Your task to perform on an android device: change timer sound Image 0: 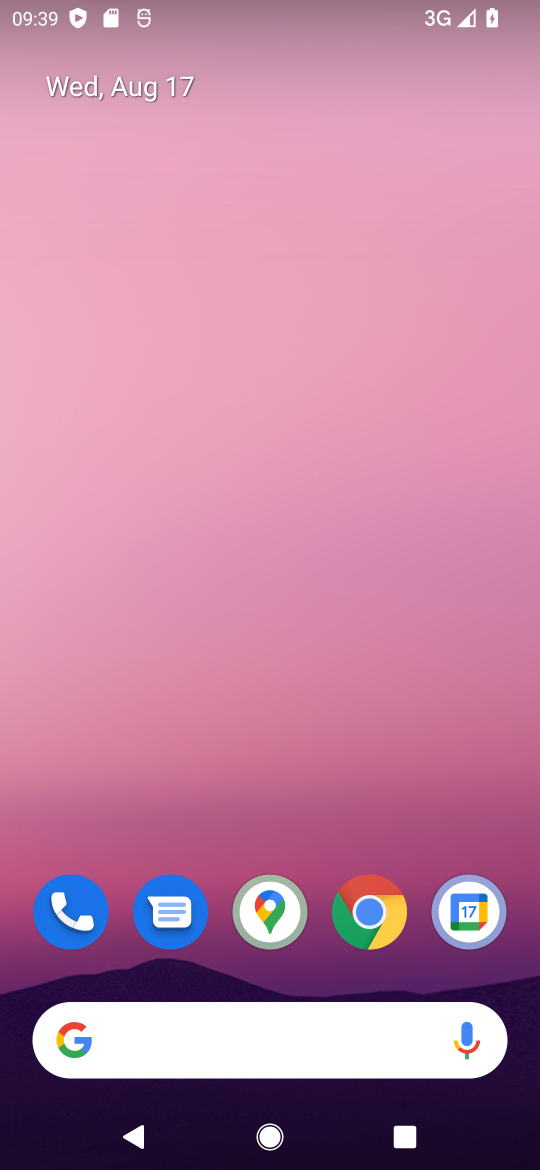
Step 0: drag from (208, 846) to (194, 12)
Your task to perform on an android device: change timer sound Image 1: 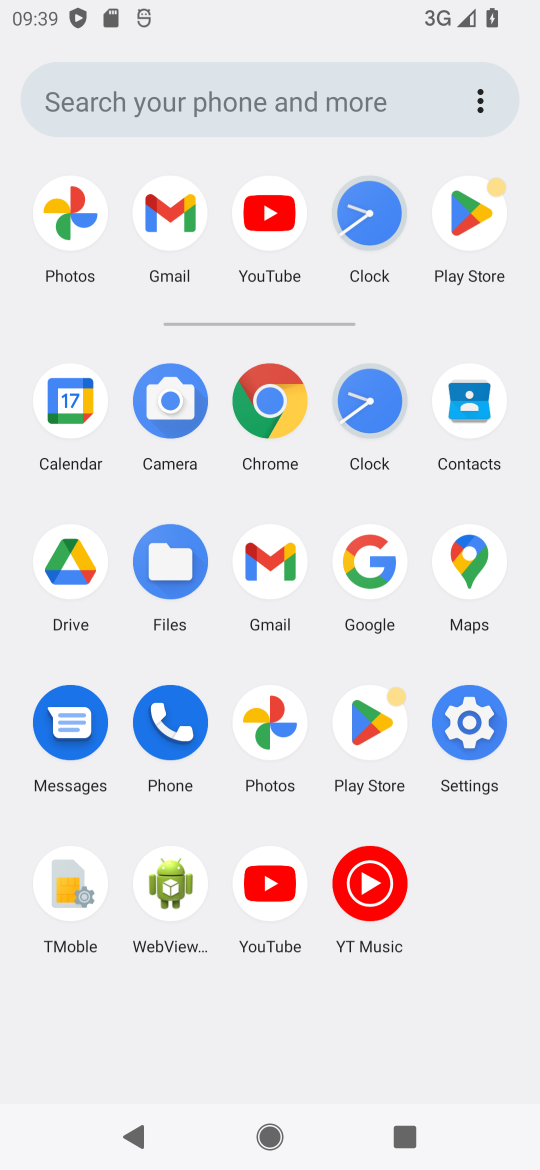
Step 1: click (388, 416)
Your task to perform on an android device: change timer sound Image 2: 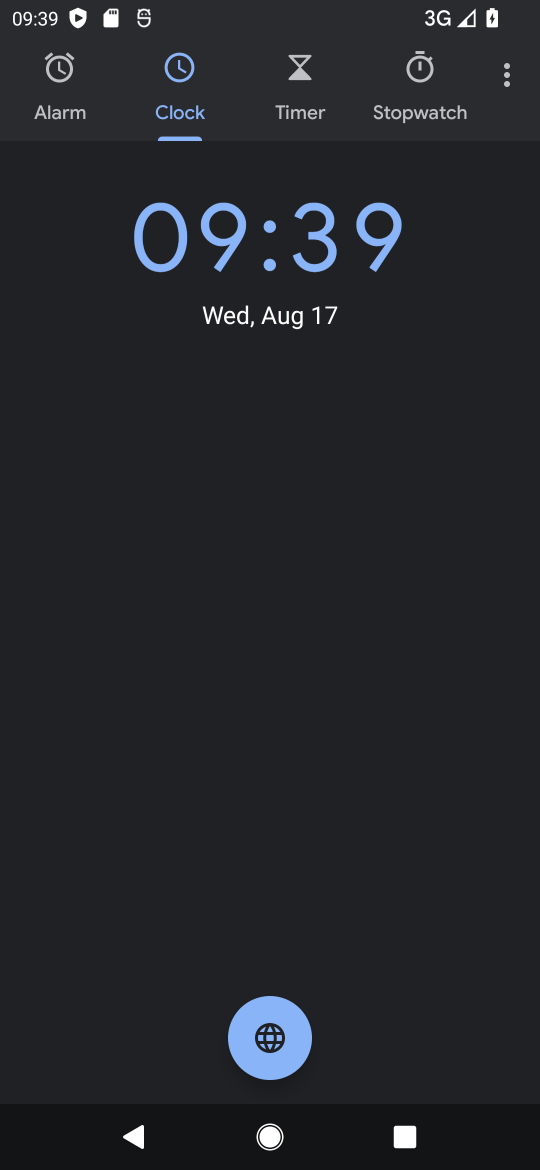
Step 2: click (499, 84)
Your task to perform on an android device: change timer sound Image 3: 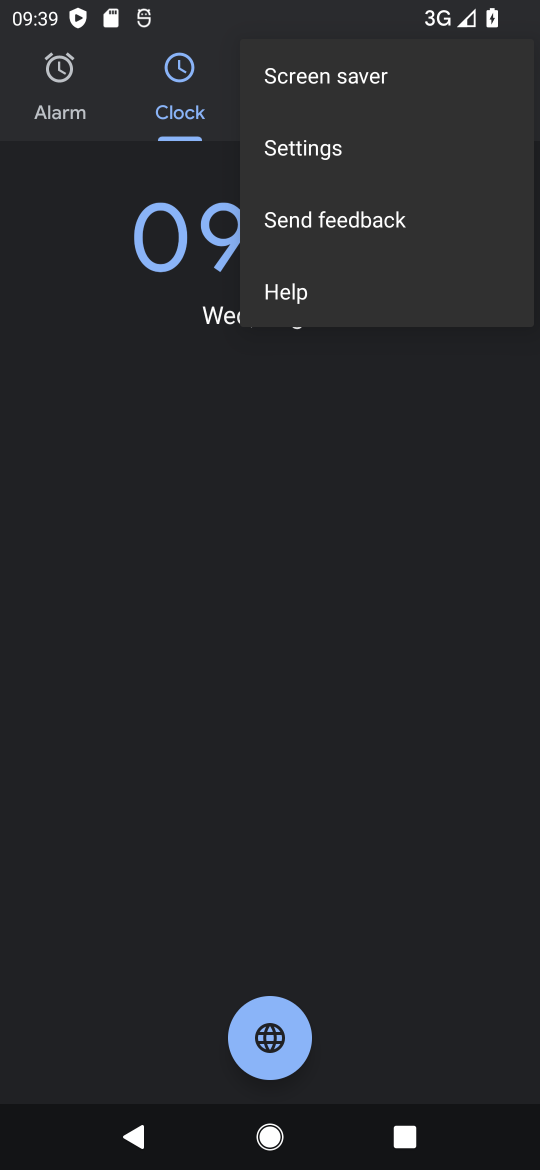
Step 3: click (297, 146)
Your task to perform on an android device: change timer sound Image 4: 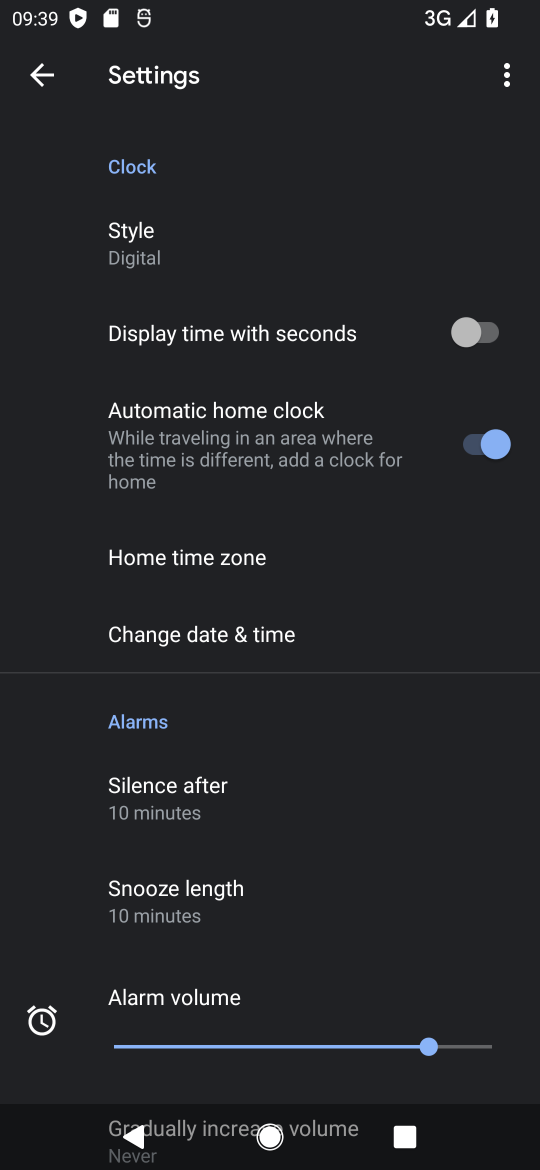
Step 4: drag from (157, 870) to (10, 267)
Your task to perform on an android device: change timer sound Image 5: 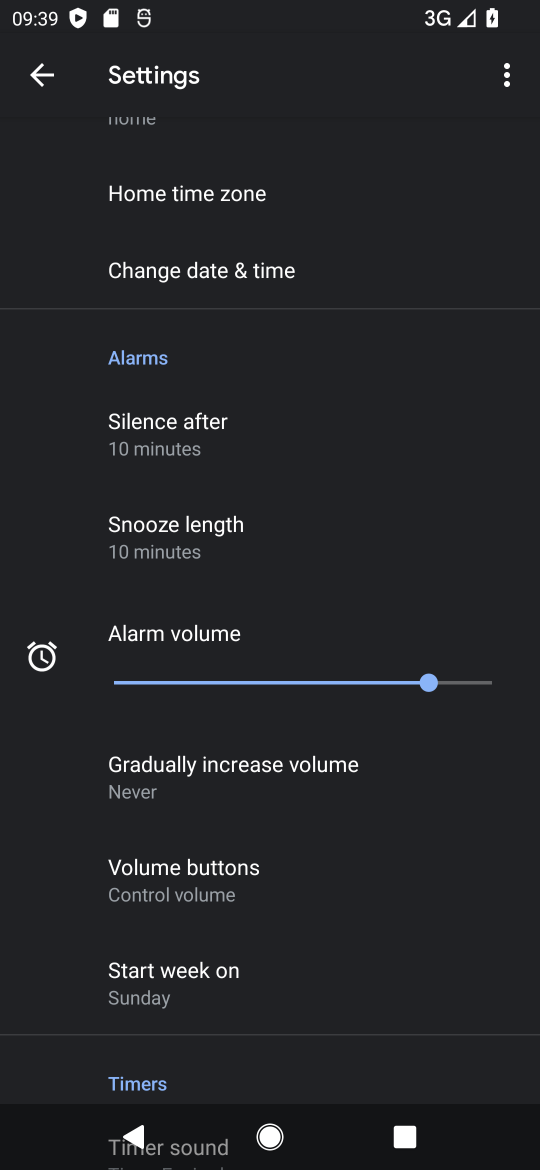
Step 5: drag from (177, 909) to (126, 307)
Your task to perform on an android device: change timer sound Image 6: 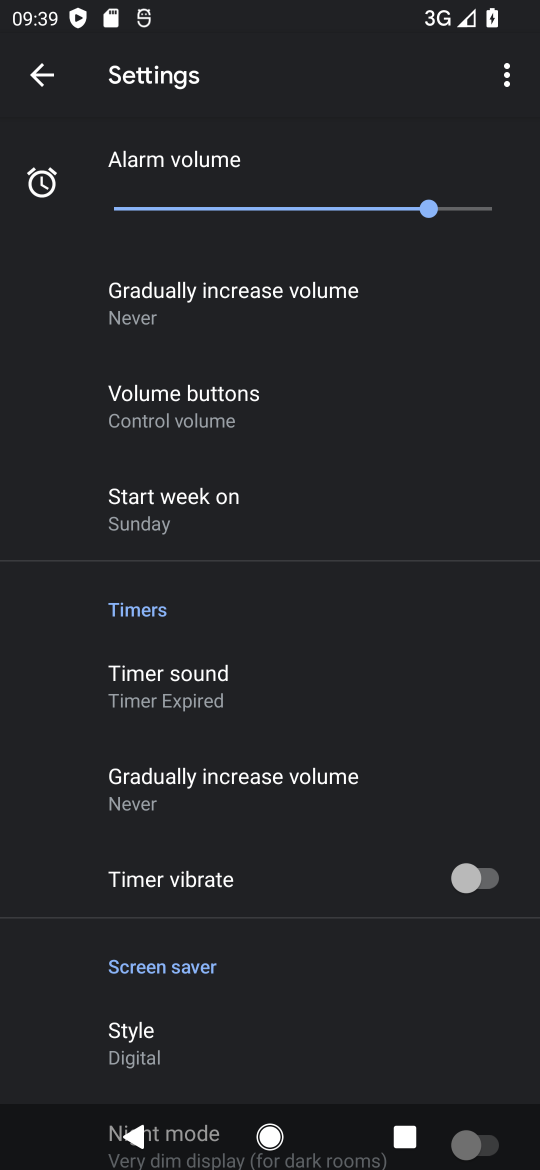
Step 6: drag from (151, 1048) to (137, 504)
Your task to perform on an android device: change timer sound Image 7: 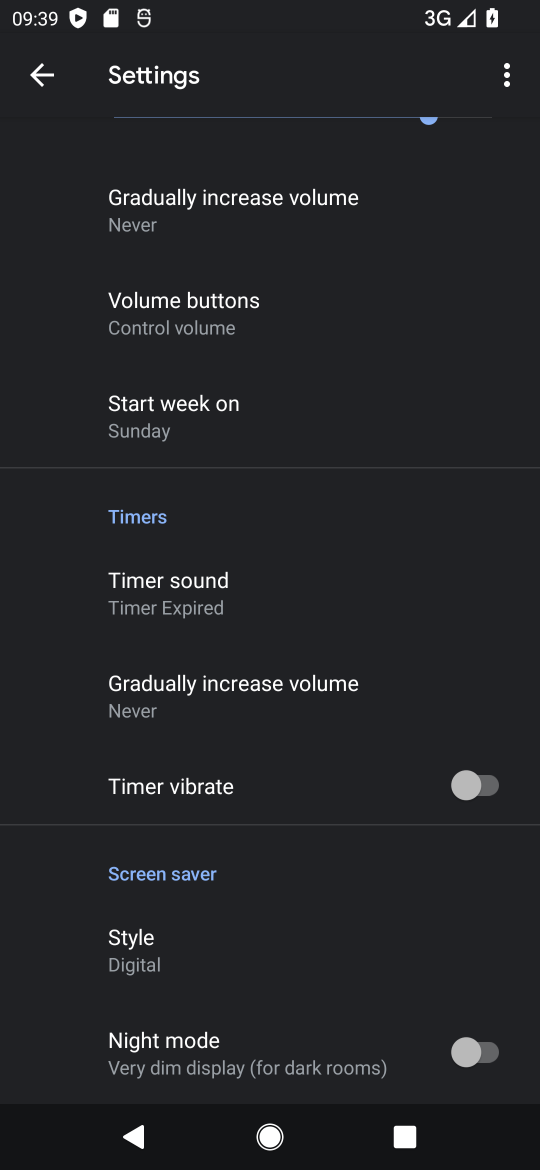
Step 7: click (170, 582)
Your task to perform on an android device: change timer sound Image 8: 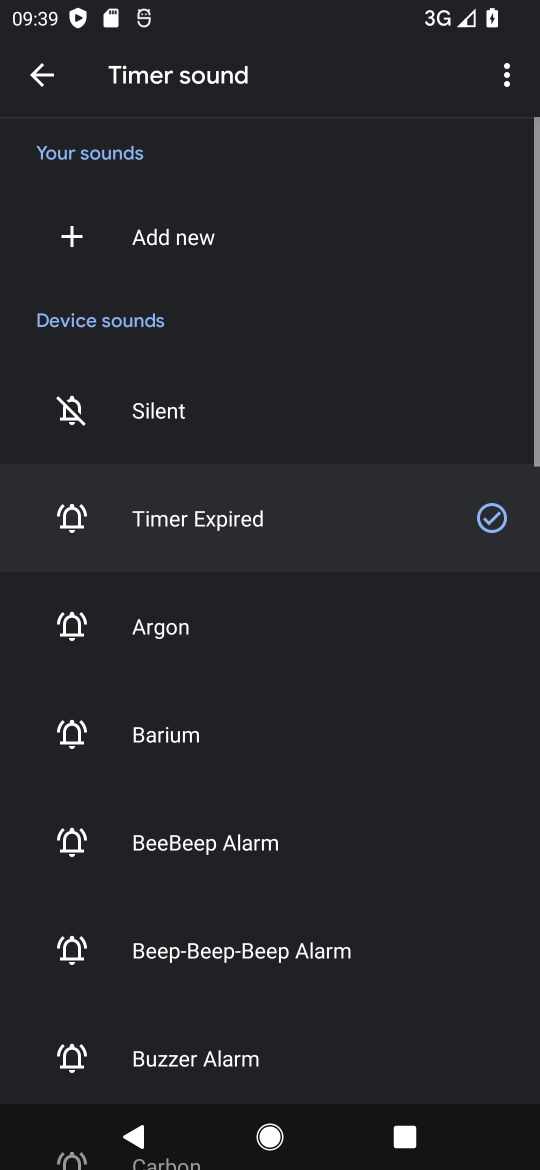
Step 8: click (192, 644)
Your task to perform on an android device: change timer sound Image 9: 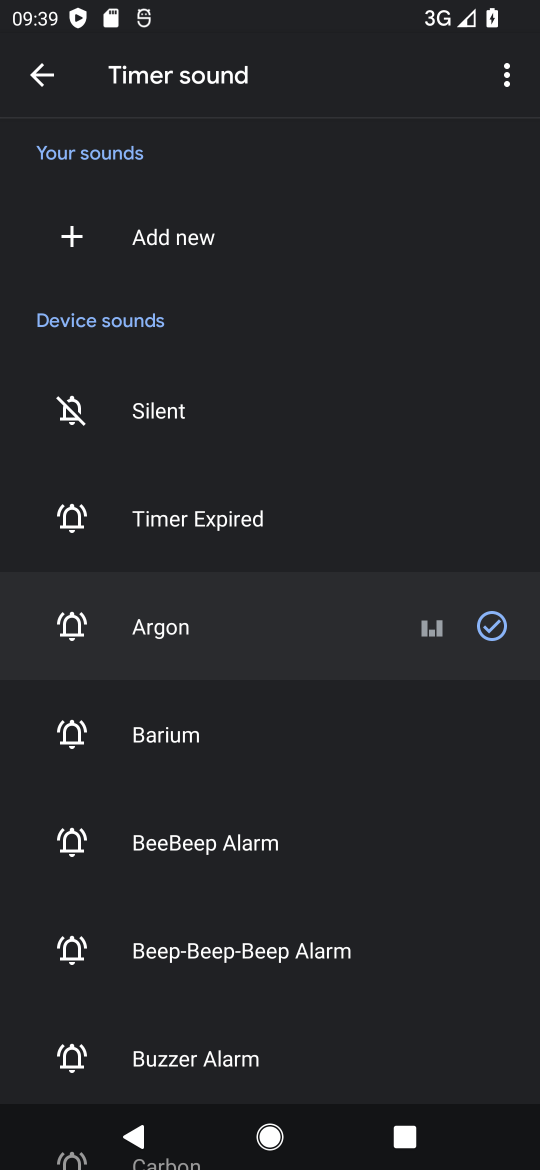
Step 9: task complete